Your task to perform on an android device: Show me popular games on the Play Store Image 0: 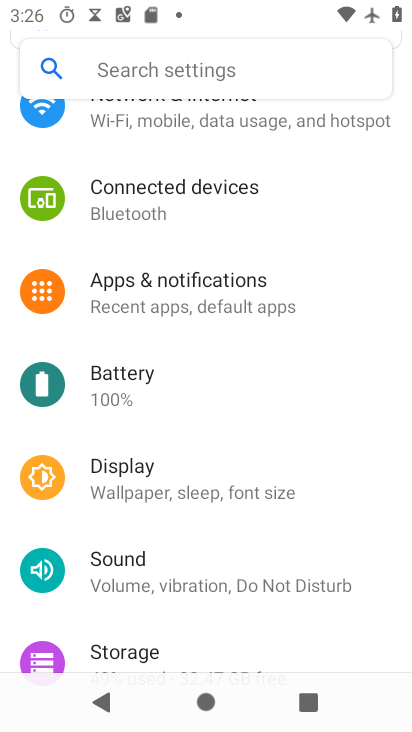
Step 0: press home button
Your task to perform on an android device: Show me popular games on the Play Store Image 1: 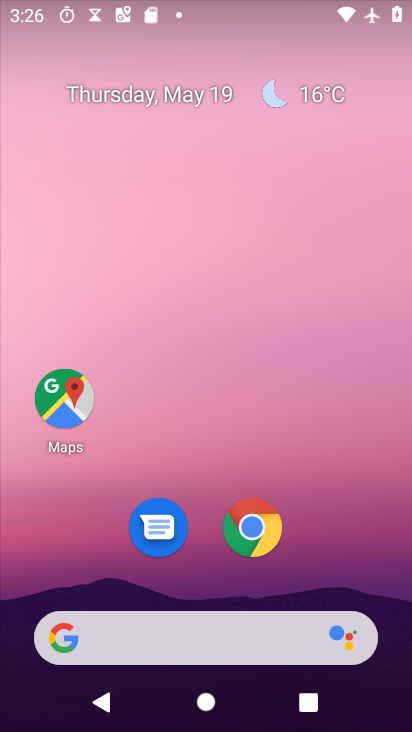
Step 1: drag from (358, 577) to (275, 0)
Your task to perform on an android device: Show me popular games on the Play Store Image 2: 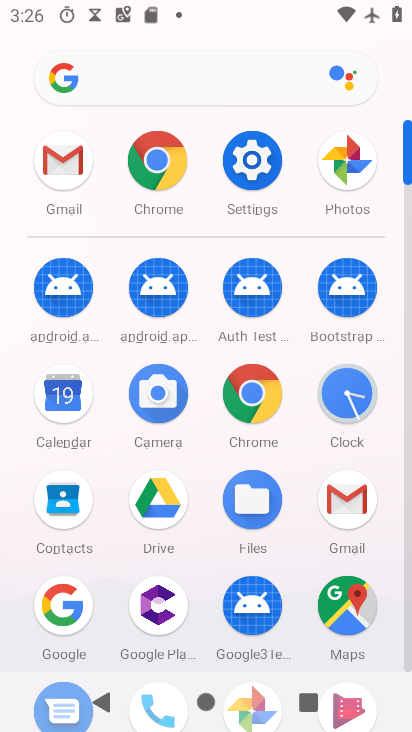
Step 2: drag from (210, 619) to (208, 149)
Your task to perform on an android device: Show me popular games on the Play Store Image 3: 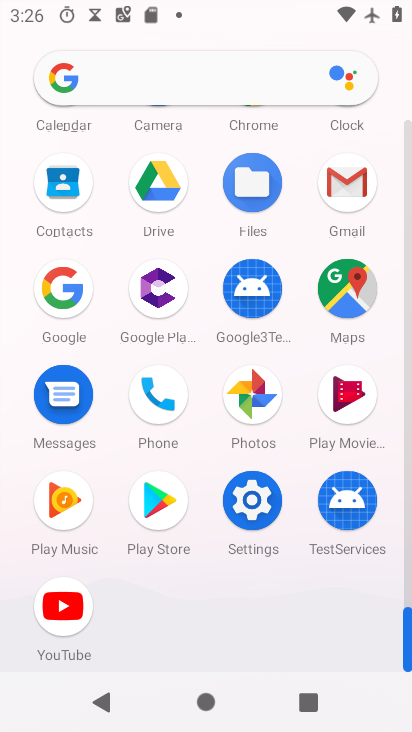
Step 3: click (167, 511)
Your task to perform on an android device: Show me popular games on the Play Store Image 4: 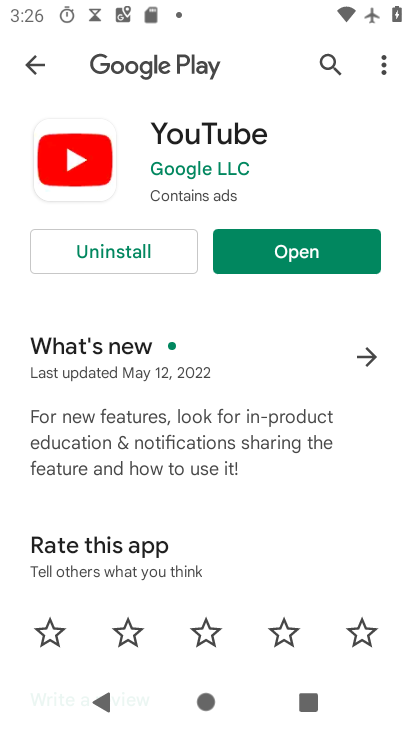
Step 4: click (30, 58)
Your task to perform on an android device: Show me popular games on the Play Store Image 5: 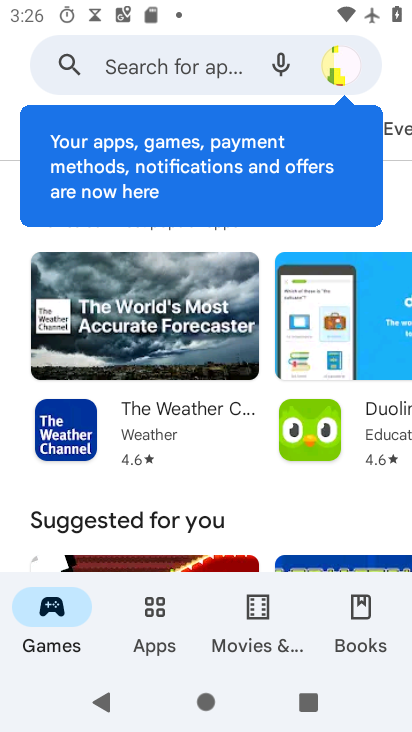
Step 5: click (11, 94)
Your task to perform on an android device: Show me popular games on the Play Store Image 6: 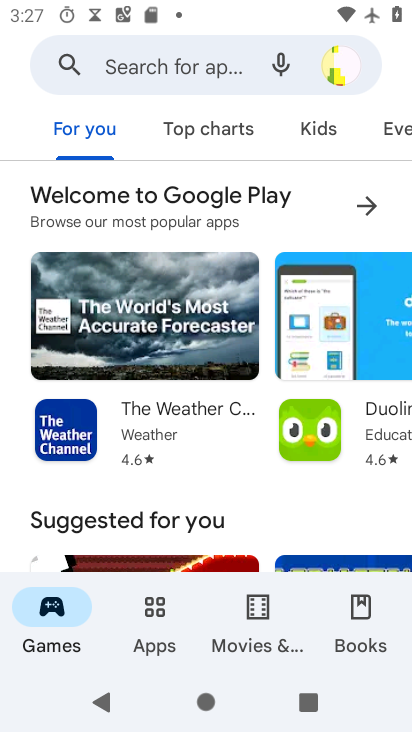
Step 6: click (204, 133)
Your task to perform on an android device: Show me popular games on the Play Store Image 7: 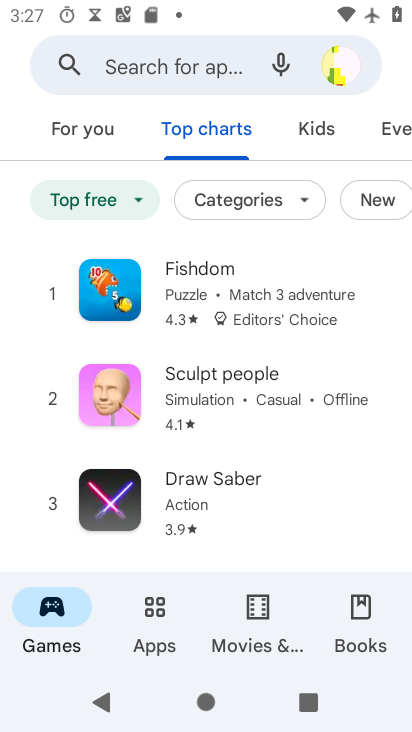
Step 7: task complete